Your task to perform on an android device: Do I have any events today? Image 0: 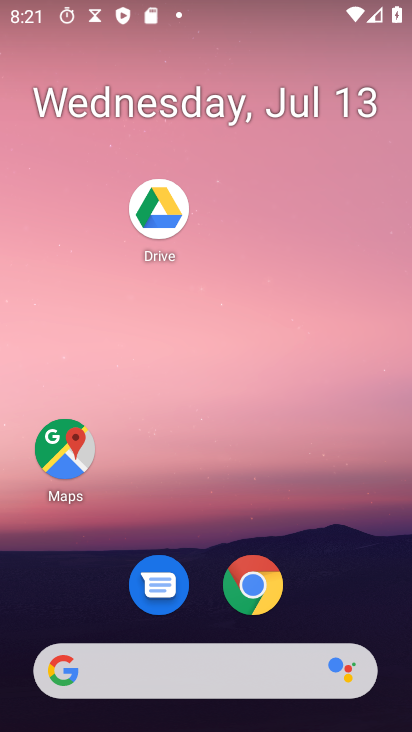
Step 0: press home button
Your task to perform on an android device: Do I have any events today? Image 1: 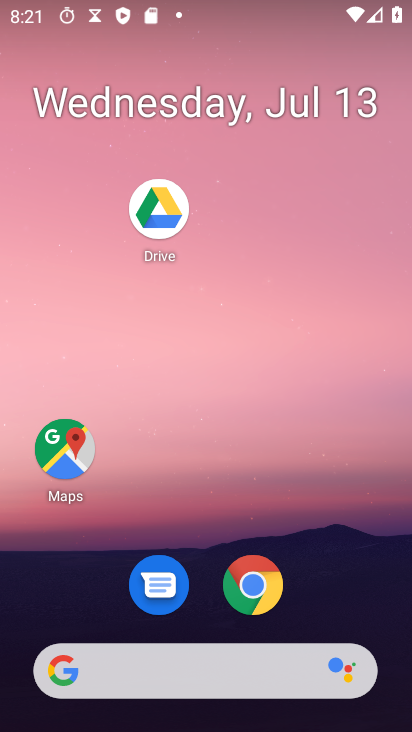
Step 1: drag from (224, 669) to (316, 200)
Your task to perform on an android device: Do I have any events today? Image 2: 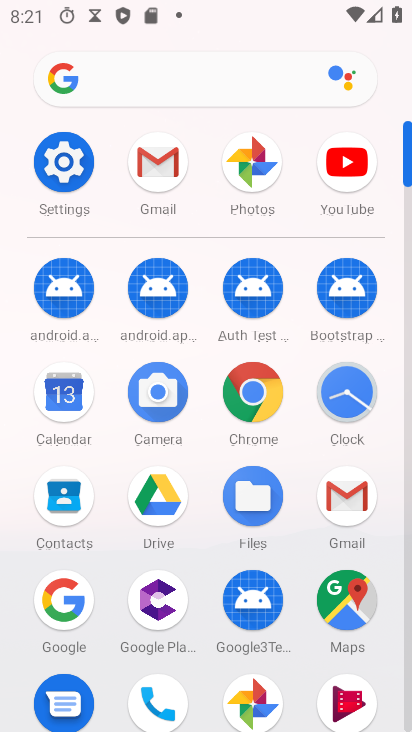
Step 2: click (72, 398)
Your task to perform on an android device: Do I have any events today? Image 3: 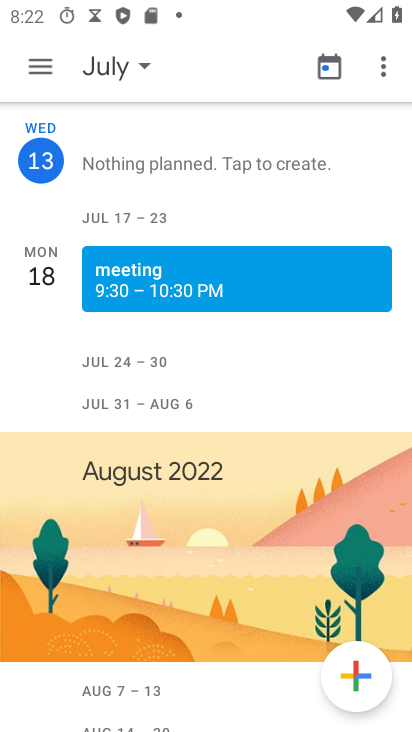
Step 3: click (98, 64)
Your task to perform on an android device: Do I have any events today? Image 4: 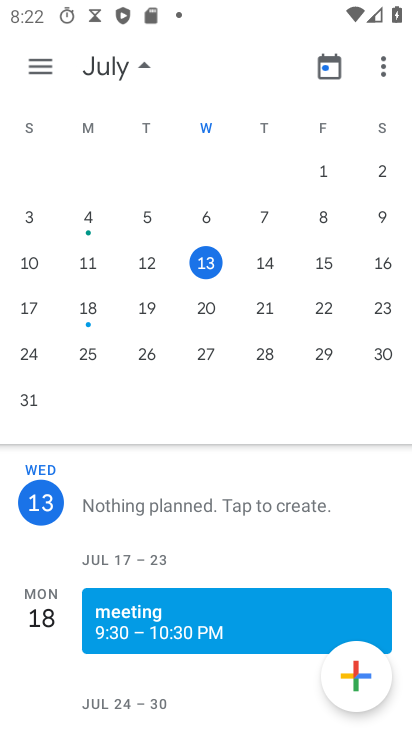
Step 4: click (216, 258)
Your task to perform on an android device: Do I have any events today? Image 5: 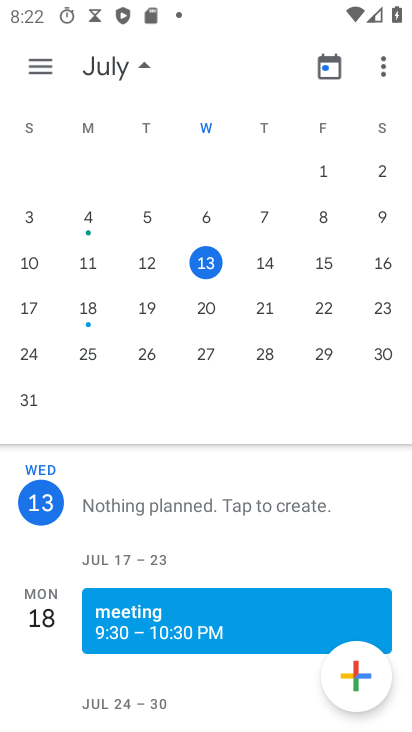
Step 5: click (43, 63)
Your task to perform on an android device: Do I have any events today? Image 6: 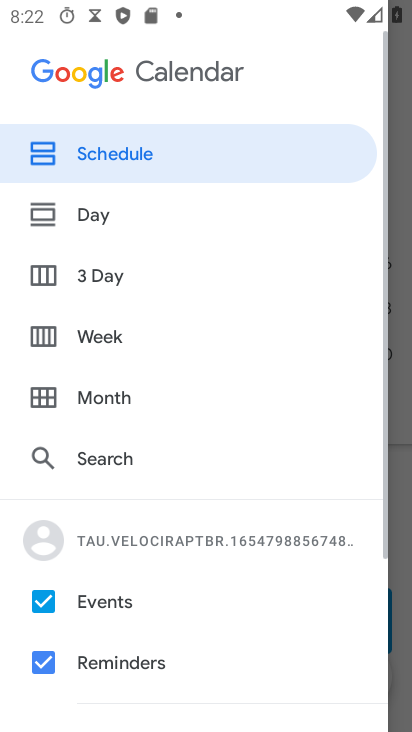
Step 6: click (129, 143)
Your task to perform on an android device: Do I have any events today? Image 7: 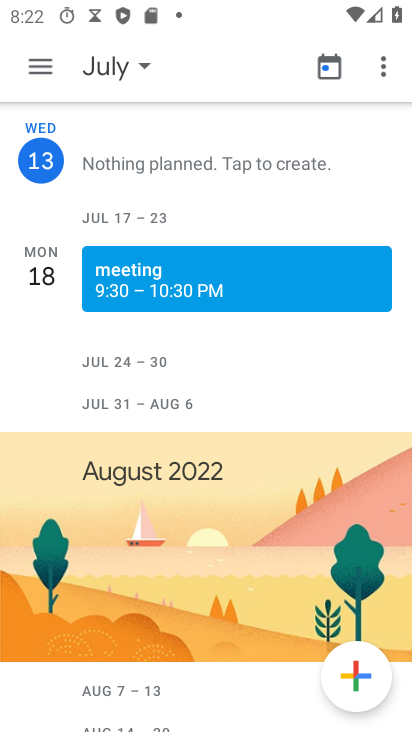
Step 7: task complete